Your task to perform on an android device: turn off javascript in the chrome app Image 0: 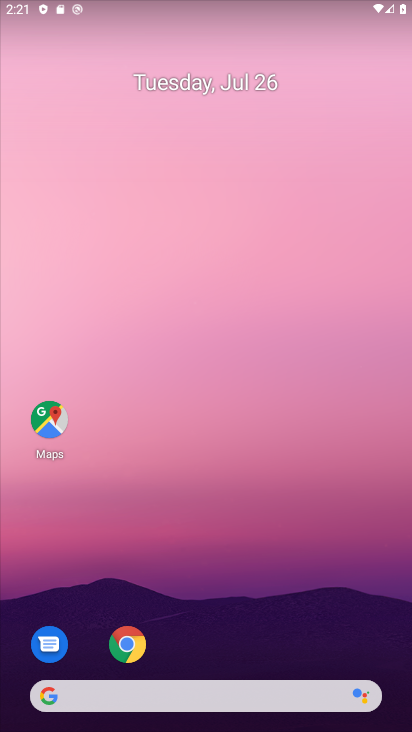
Step 0: press home button
Your task to perform on an android device: turn off javascript in the chrome app Image 1: 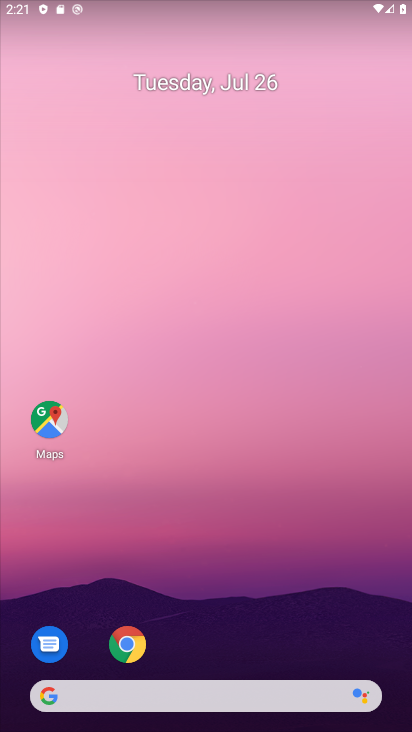
Step 1: click (120, 656)
Your task to perform on an android device: turn off javascript in the chrome app Image 2: 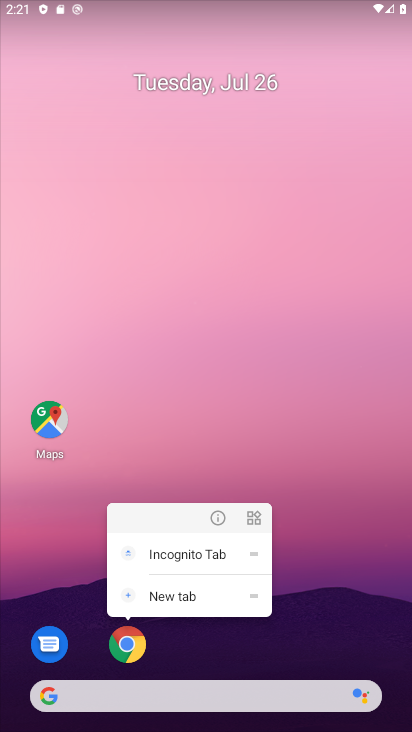
Step 2: click (124, 651)
Your task to perform on an android device: turn off javascript in the chrome app Image 3: 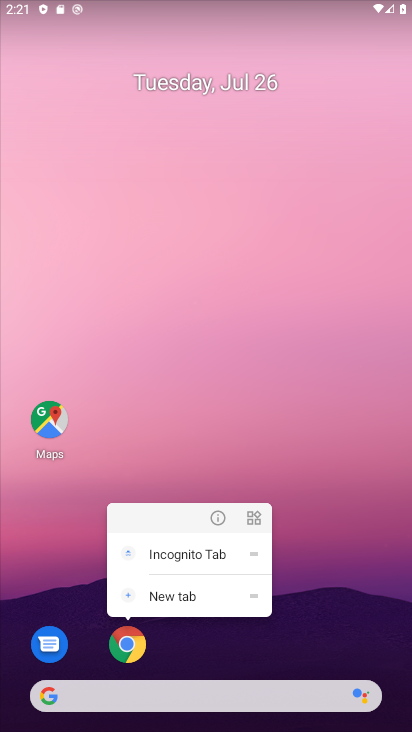
Step 3: click (130, 646)
Your task to perform on an android device: turn off javascript in the chrome app Image 4: 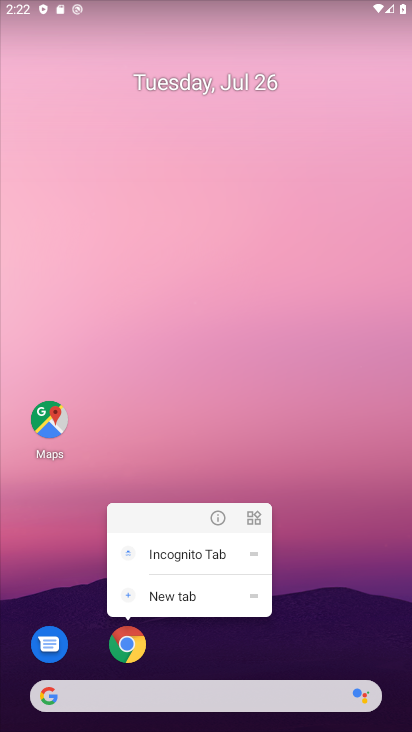
Step 4: click (136, 646)
Your task to perform on an android device: turn off javascript in the chrome app Image 5: 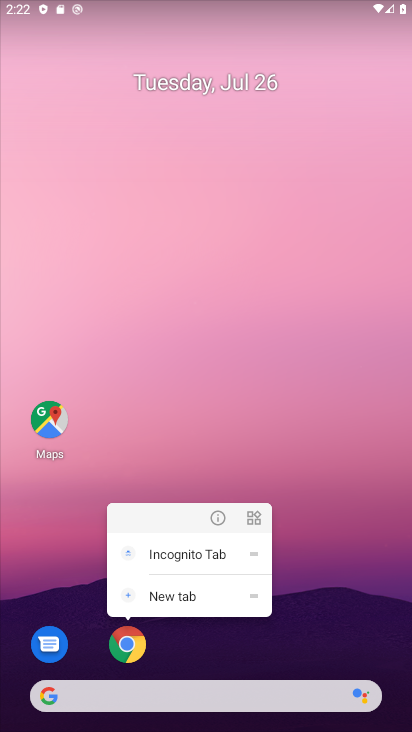
Step 5: click (128, 650)
Your task to perform on an android device: turn off javascript in the chrome app Image 6: 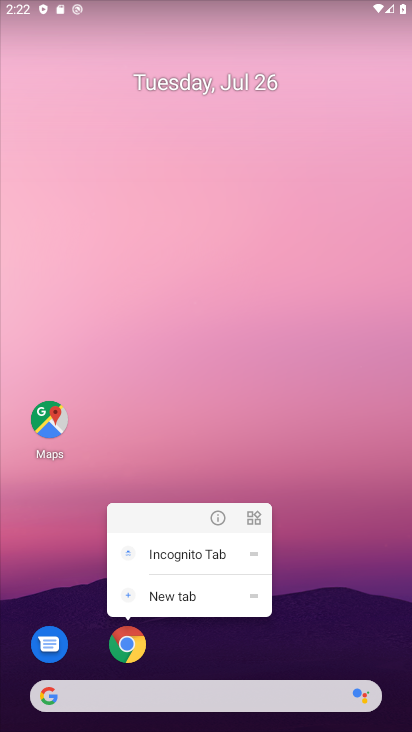
Step 6: click (121, 637)
Your task to perform on an android device: turn off javascript in the chrome app Image 7: 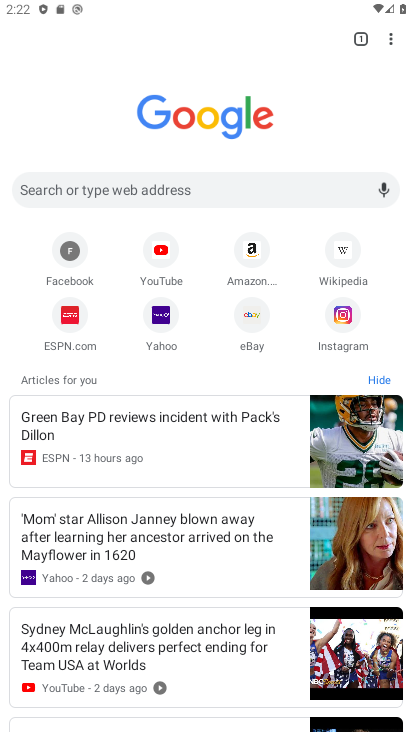
Step 7: drag from (392, 36) to (248, 332)
Your task to perform on an android device: turn off javascript in the chrome app Image 8: 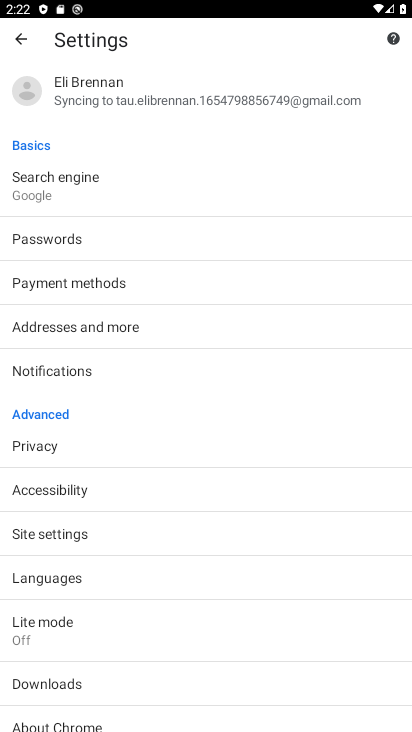
Step 8: click (86, 532)
Your task to perform on an android device: turn off javascript in the chrome app Image 9: 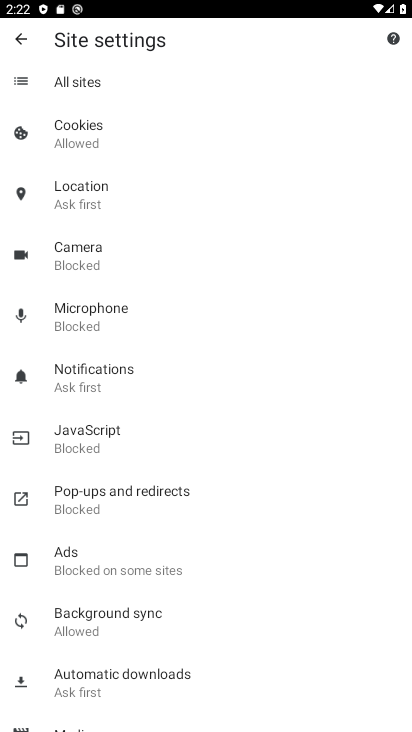
Step 9: click (93, 438)
Your task to perform on an android device: turn off javascript in the chrome app Image 10: 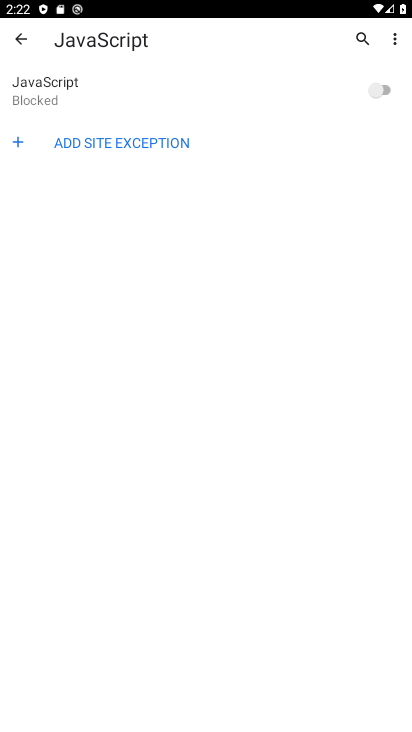
Step 10: task complete